Your task to perform on an android device: Open calendar and show me the first week of next month Image 0: 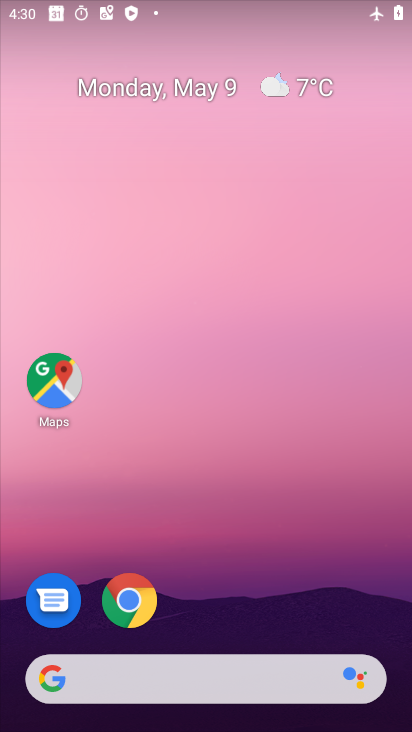
Step 0: drag from (240, 616) to (284, 271)
Your task to perform on an android device: Open calendar and show me the first week of next month Image 1: 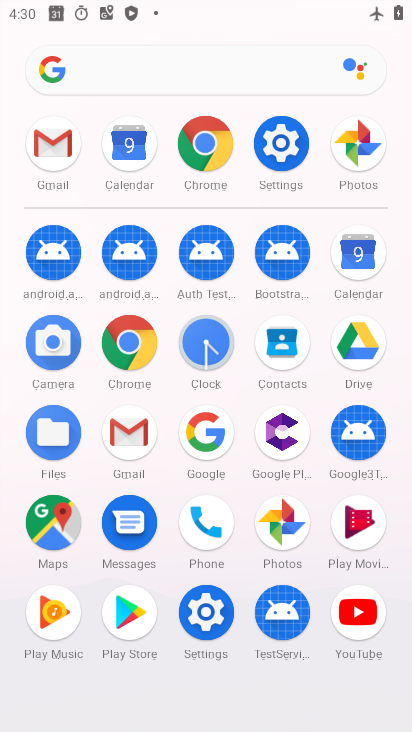
Step 1: click (361, 240)
Your task to perform on an android device: Open calendar and show me the first week of next month Image 2: 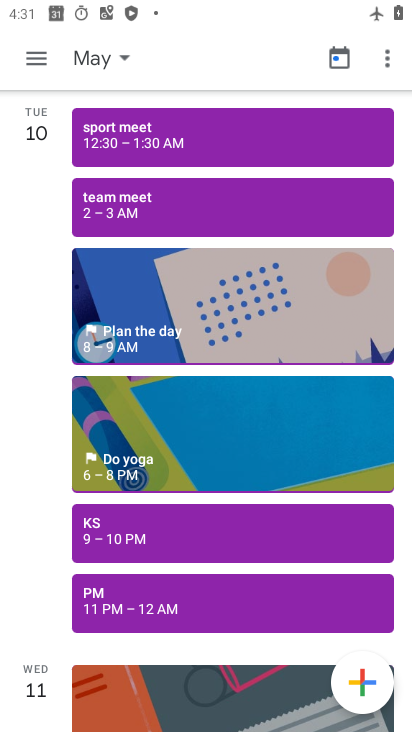
Step 2: click (81, 53)
Your task to perform on an android device: Open calendar and show me the first week of next month Image 3: 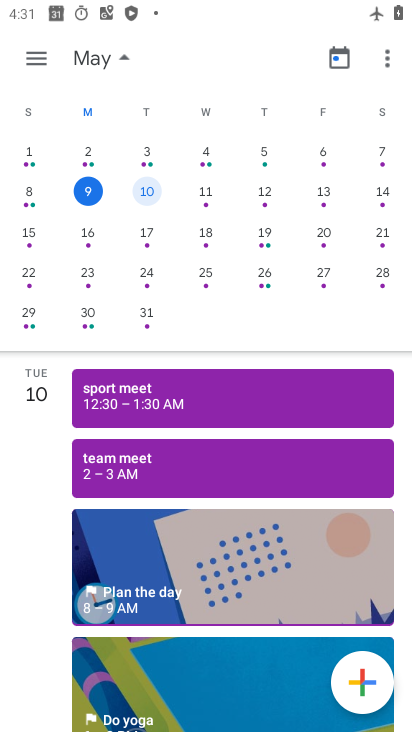
Step 3: drag from (342, 217) to (25, 224)
Your task to perform on an android device: Open calendar and show me the first week of next month Image 4: 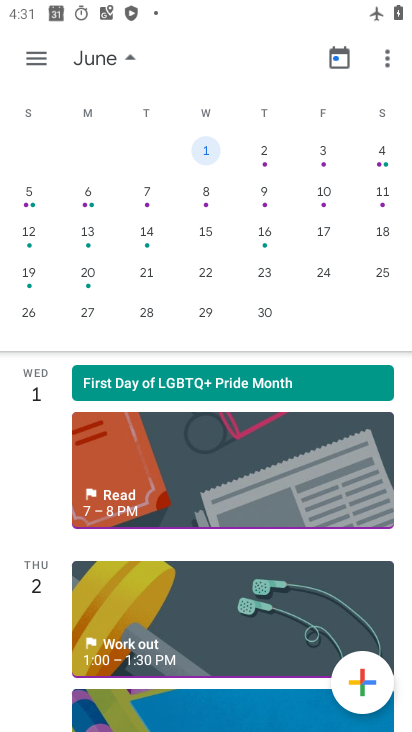
Step 4: click (313, 152)
Your task to perform on an android device: Open calendar and show me the first week of next month Image 5: 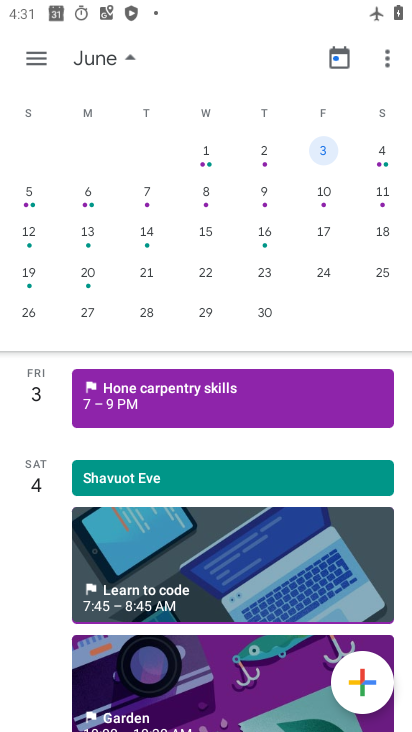
Step 5: task complete